Your task to perform on an android device: Clear all items from cart on bestbuy. Image 0: 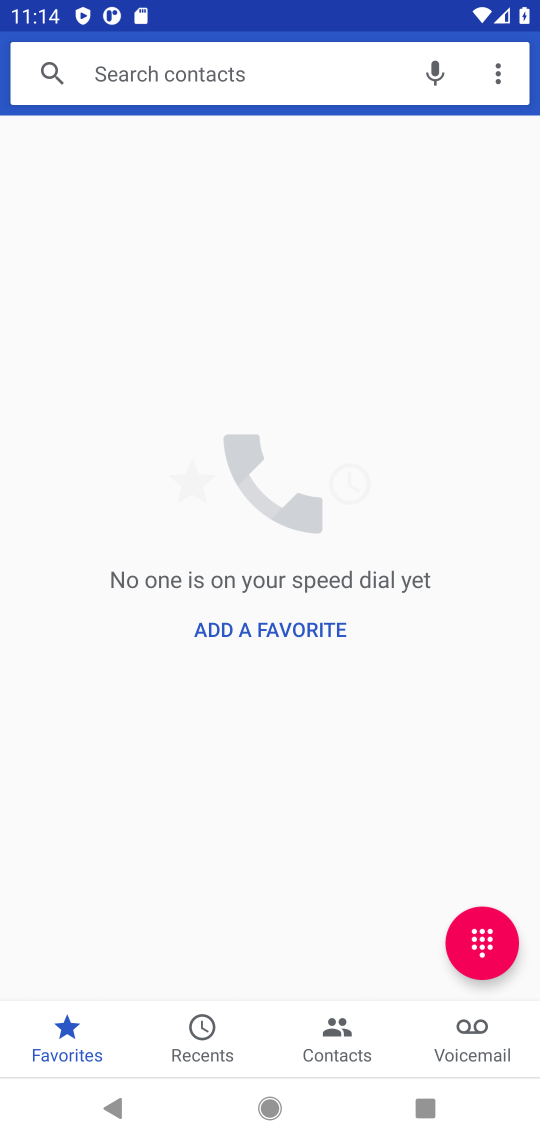
Step 0: press home button
Your task to perform on an android device: Clear all items from cart on bestbuy. Image 1: 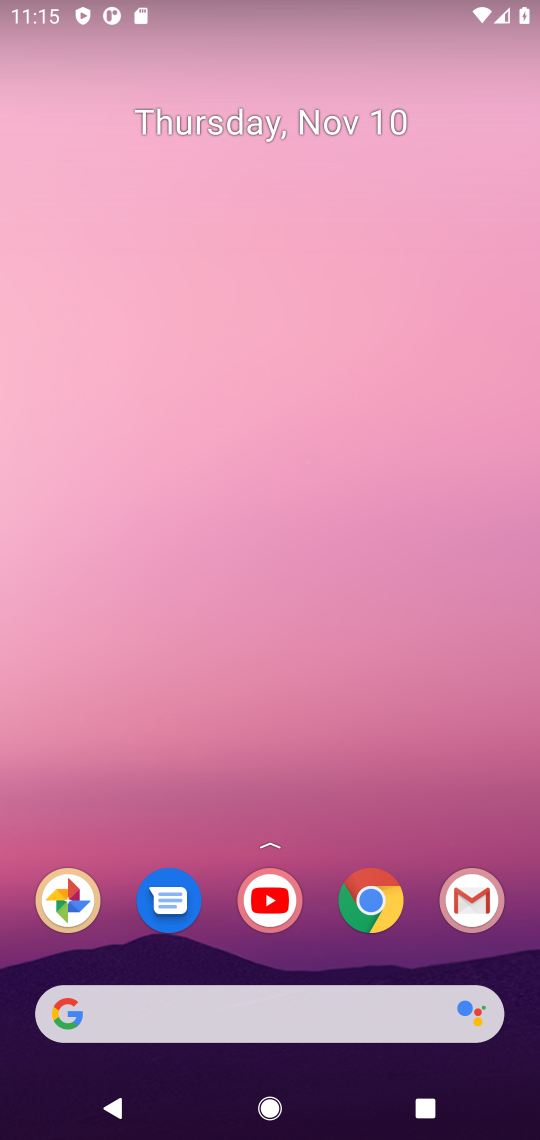
Step 1: click (371, 901)
Your task to perform on an android device: Clear all items from cart on bestbuy. Image 2: 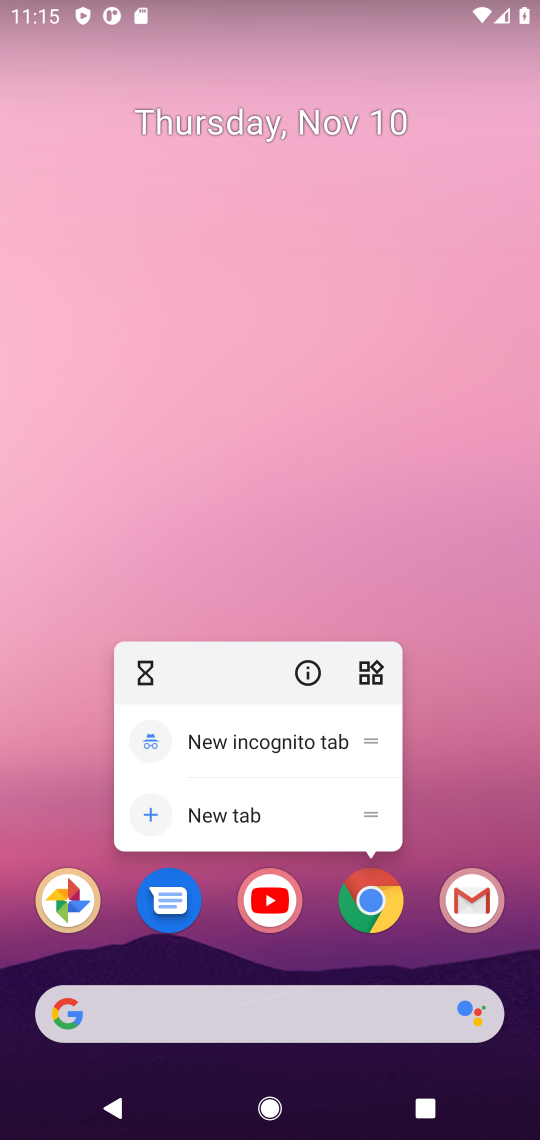
Step 2: click (369, 920)
Your task to perform on an android device: Clear all items from cart on bestbuy. Image 3: 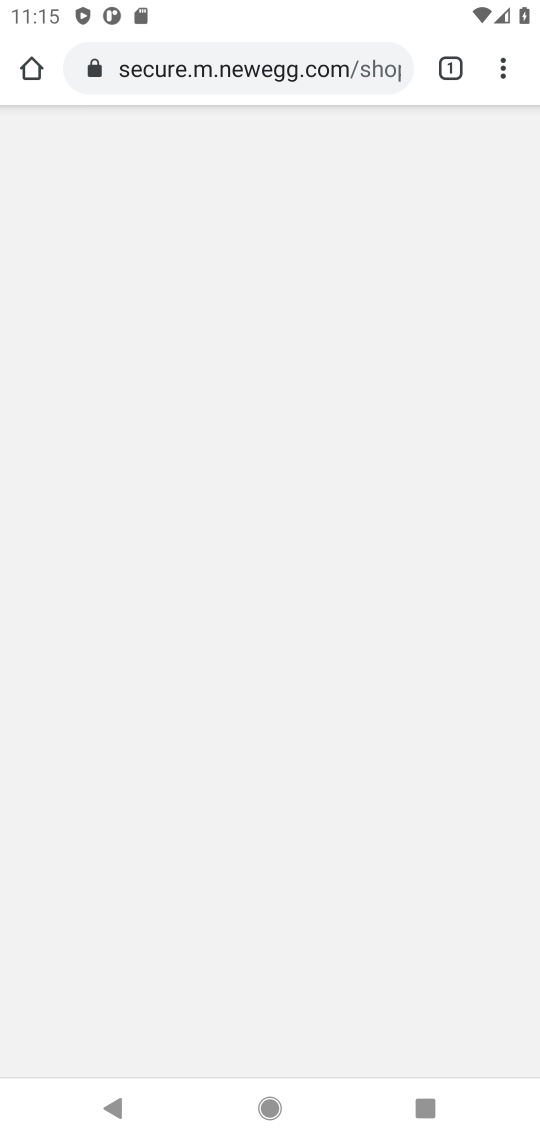
Step 3: click (292, 73)
Your task to perform on an android device: Clear all items from cart on bestbuy. Image 4: 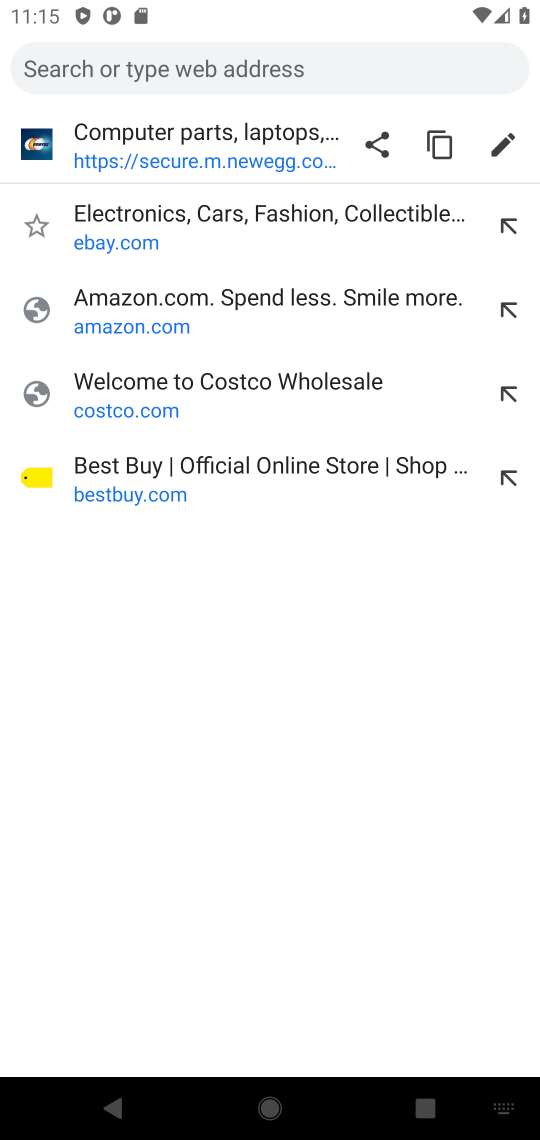
Step 4: click (142, 487)
Your task to perform on an android device: Clear all items from cart on bestbuy. Image 5: 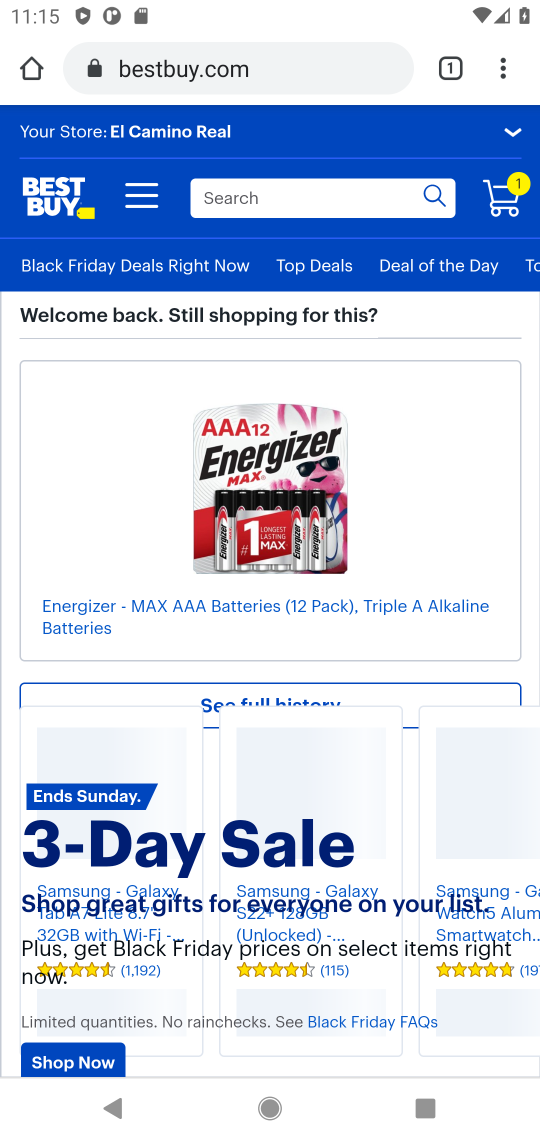
Step 5: click (503, 190)
Your task to perform on an android device: Clear all items from cart on bestbuy. Image 6: 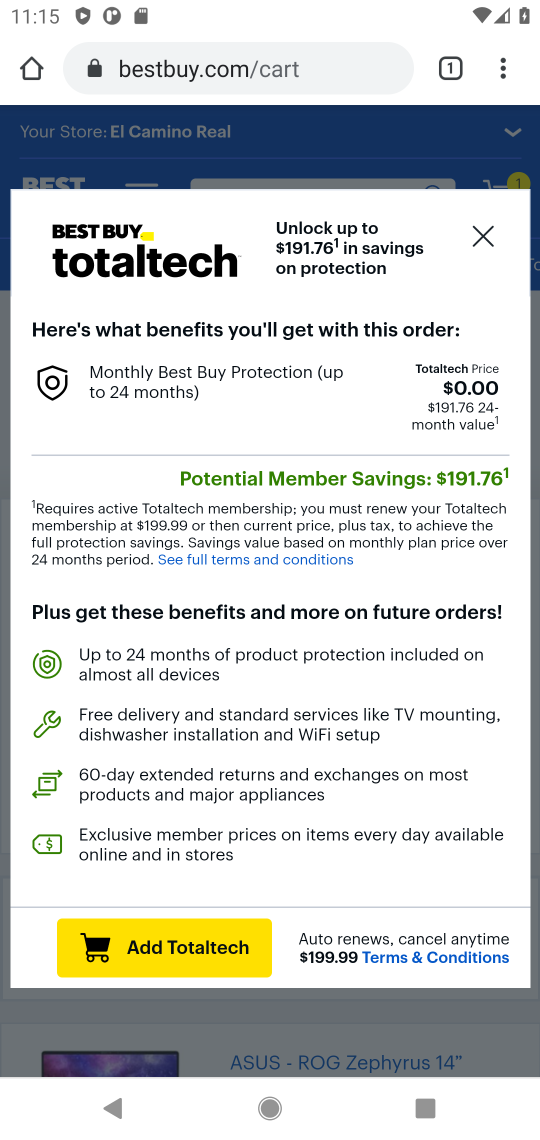
Step 6: click (482, 236)
Your task to perform on an android device: Clear all items from cart on bestbuy. Image 7: 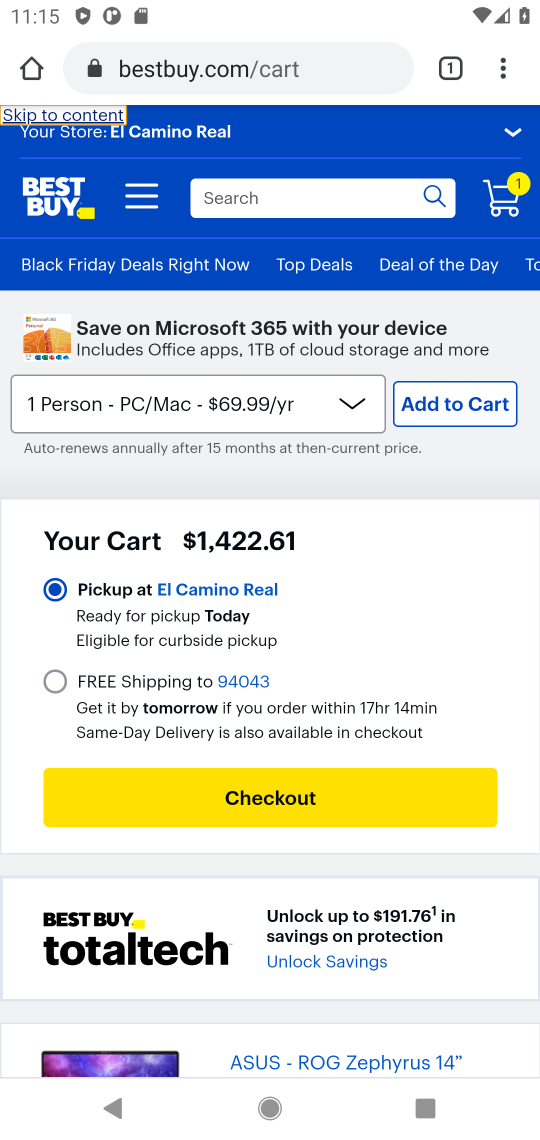
Step 7: drag from (267, 934) to (374, 347)
Your task to perform on an android device: Clear all items from cart on bestbuy. Image 8: 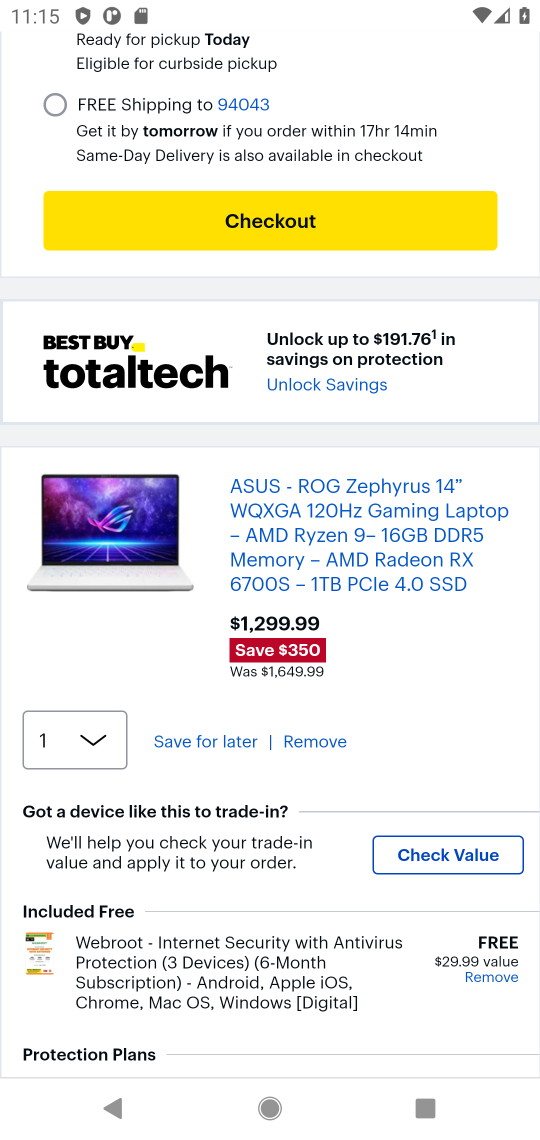
Step 8: click (321, 740)
Your task to perform on an android device: Clear all items from cart on bestbuy. Image 9: 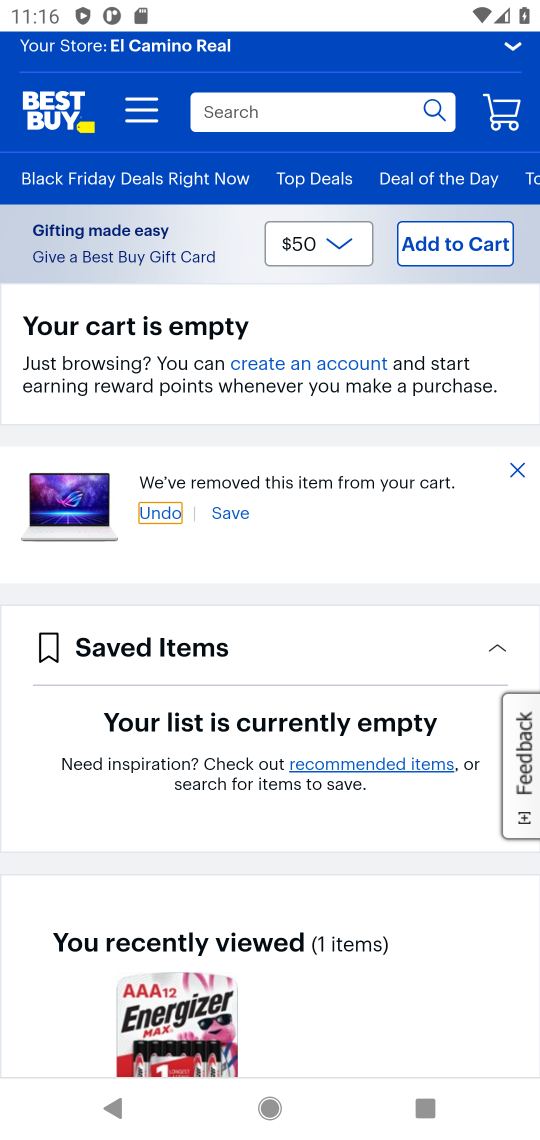
Step 9: task complete